Your task to perform on an android device: open a bookmark in the chrome app Image 0: 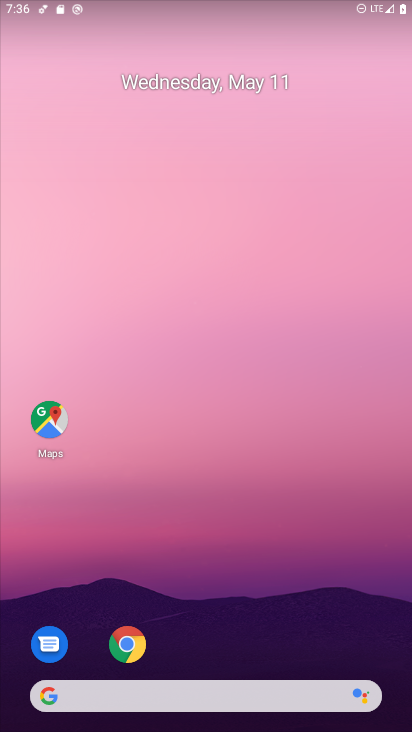
Step 0: click (123, 644)
Your task to perform on an android device: open a bookmark in the chrome app Image 1: 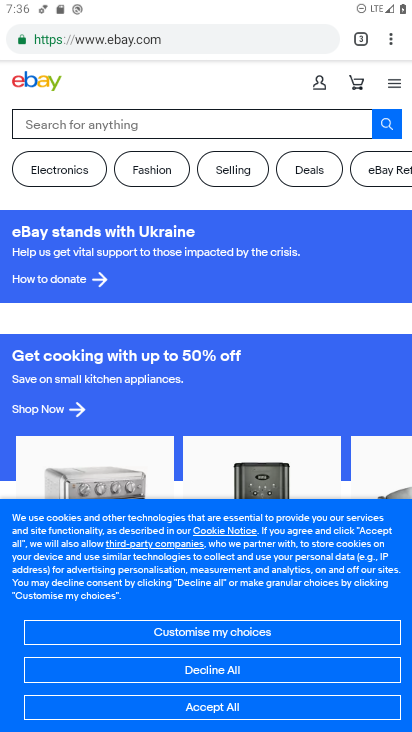
Step 1: click (380, 40)
Your task to perform on an android device: open a bookmark in the chrome app Image 2: 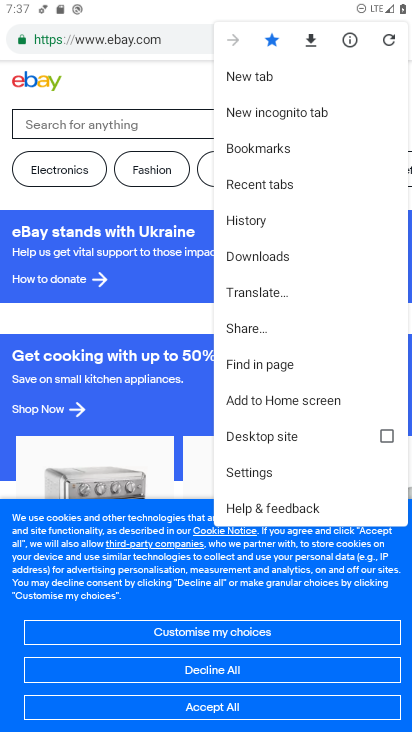
Step 2: click (271, 147)
Your task to perform on an android device: open a bookmark in the chrome app Image 3: 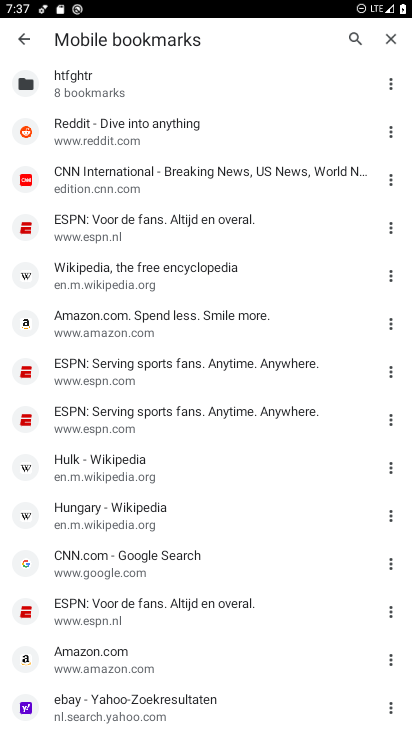
Step 3: task complete